Your task to perform on an android device: empty trash in the gmail app Image 0: 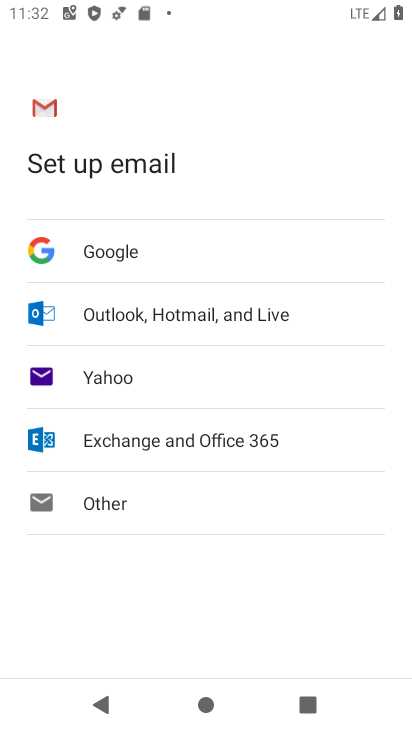
Step 0: press home button
Your task to perform on an android device: empty trash in the gmail app Image 1: 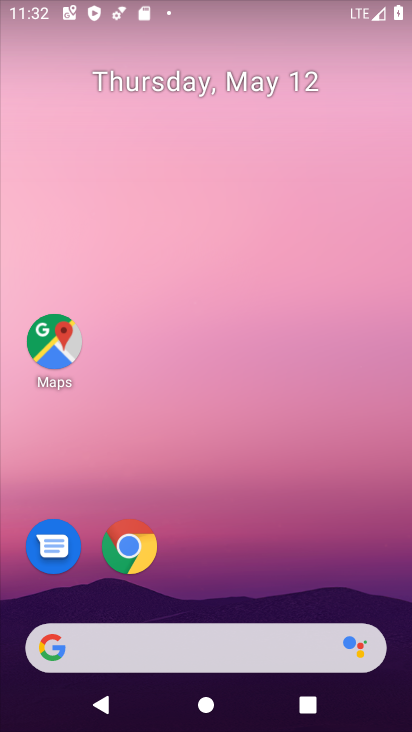
Step 1: drag from (252, 547) to (270, 6)
Your task to perform on an android device: empty trash in the gmail app Image 2: 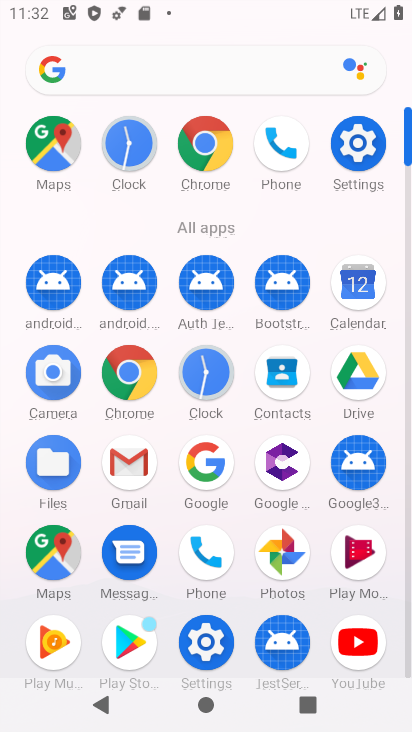
Step 2: click (136, 466)
Your task to perform on an android device: empty trash in the gmail app Image 3: 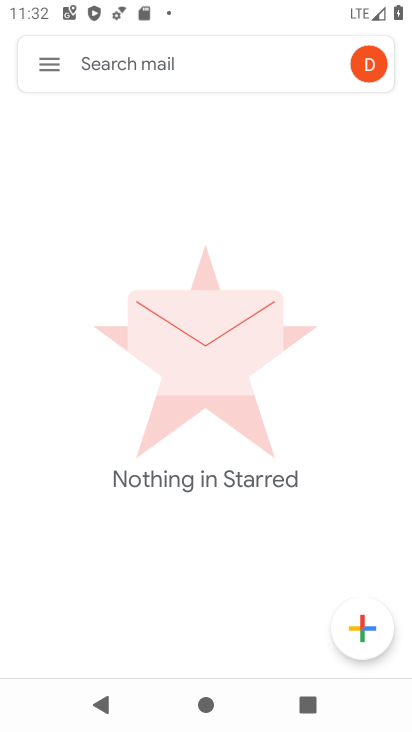
Step 3: click (46, 59)
Your task to perform on an android device: empty trash in the gmail app Image 4: 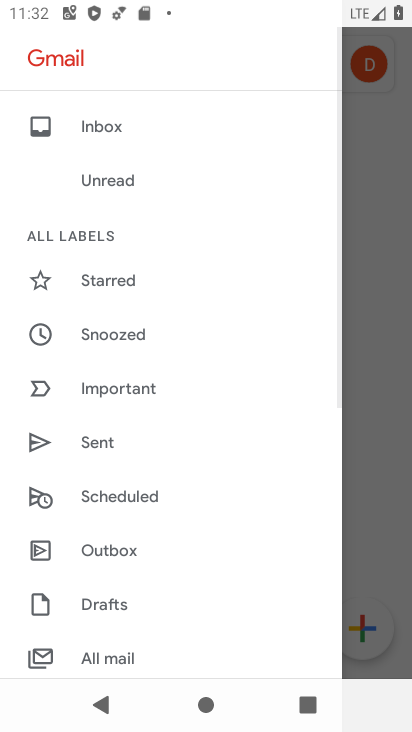
Step 4: drag from (151, 586) to (162, 292)
Your task to perform on an android device: empty trash in the gmail app Image 5: 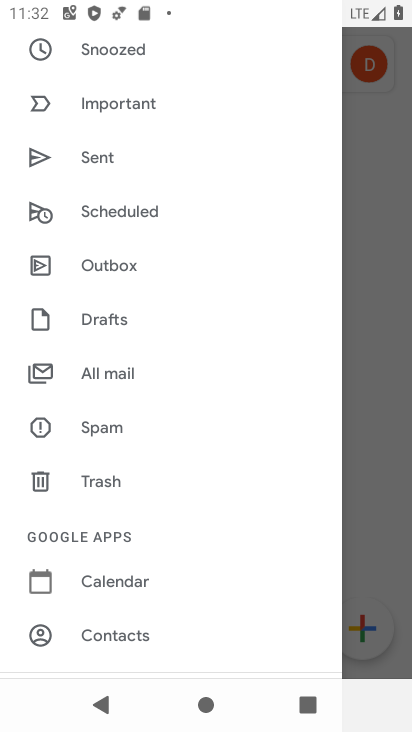
Step 5: click (106, 480)
Your task to perform on an android device: empty trash in the gmail app Image 6: 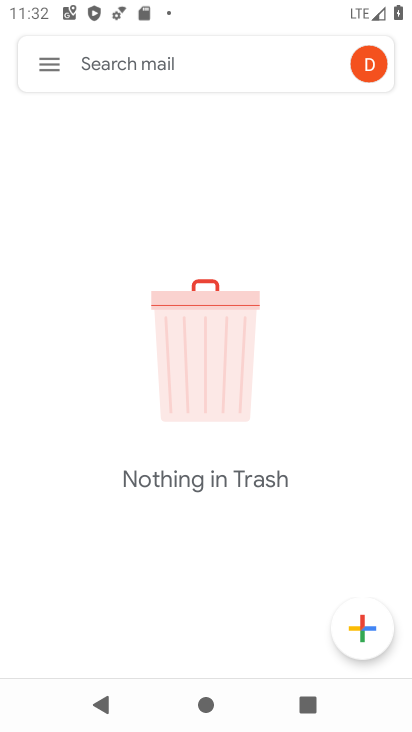
Step 6: task complete